Your task to perform on an android device: turn off sleep mode Image 0: 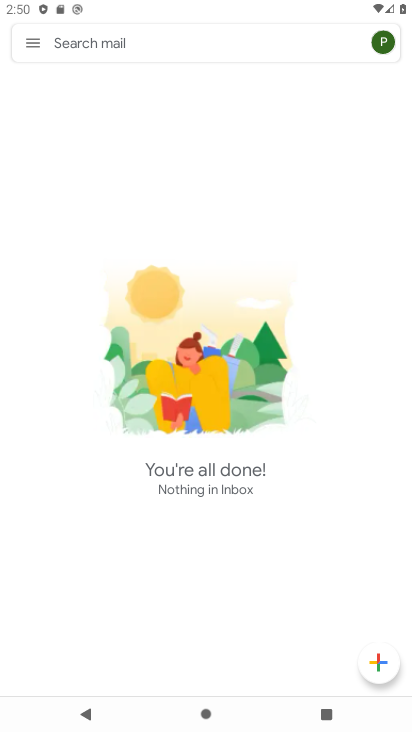
Step 0: press home button
Your task to perform on an android device: turn off sleep mode Image 1: 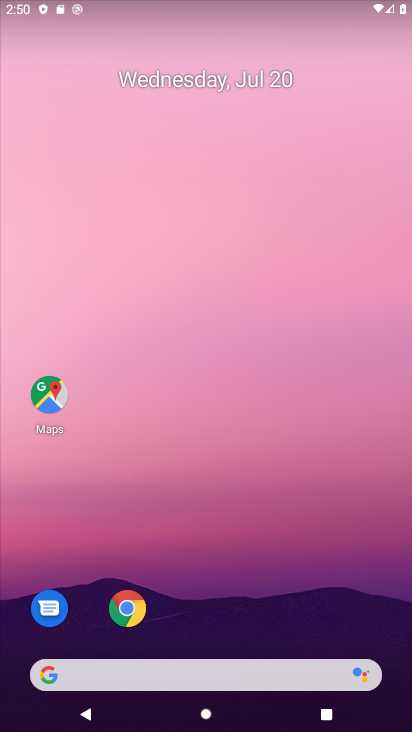
Step 1: drag from (301, 573) to (313, 72)
Your task to perform on an android device: turn off sleep mode Image 2: 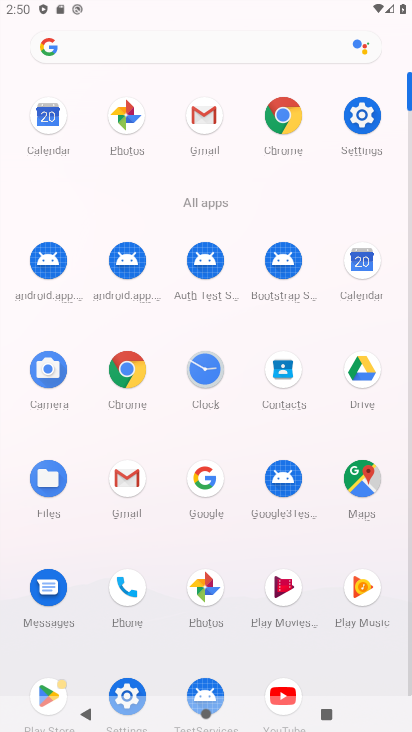
Step 2: click (361, 122)
Your task to perform on an android device: turn off sleep mode Image 3: 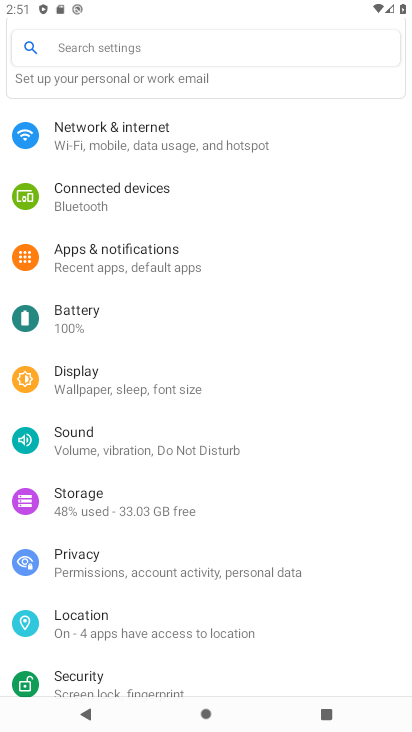
Step 3: click (100, 389)
Your task to perform on an android device: turn off sleep mode Image 4: 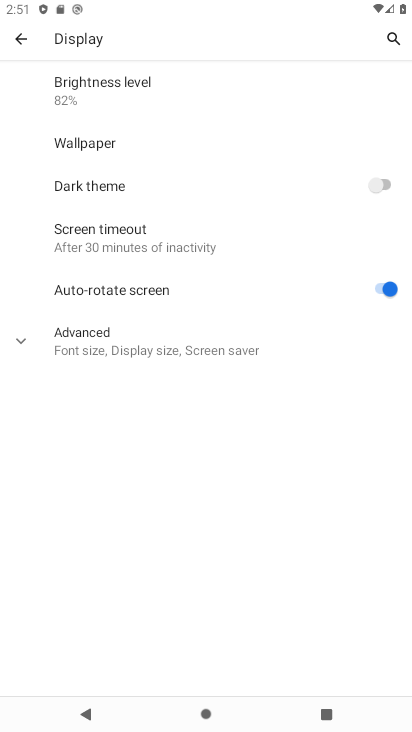
Step 4: click (158, 240)
Your task to perform on an android device: turn off sleep mode Image 5: 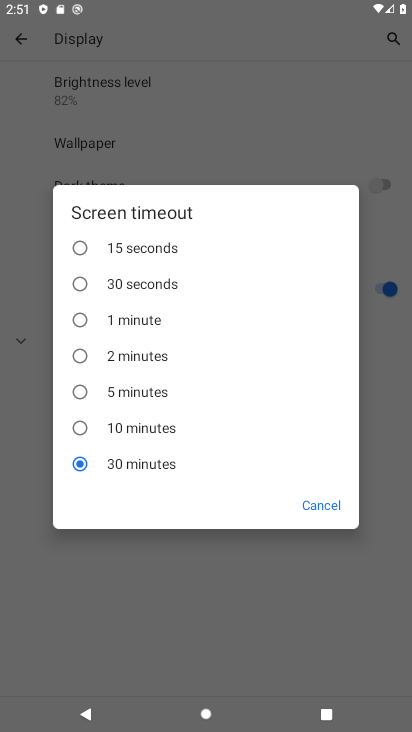
Step 5: task complete